Your task to perform on an android device: Add razer nari to the cart on amazon.com, then select checkout. Image 0: 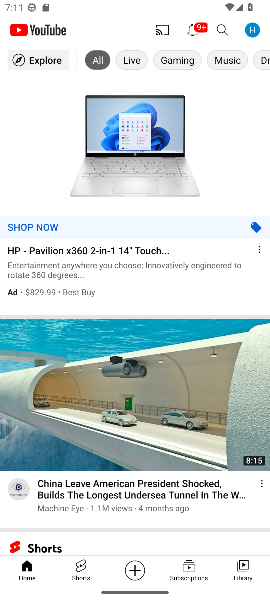
Step 0: press home button
Your task to perform on an android device: Add razer nari to the cart on amazon.com, then select checkout. Image 1: 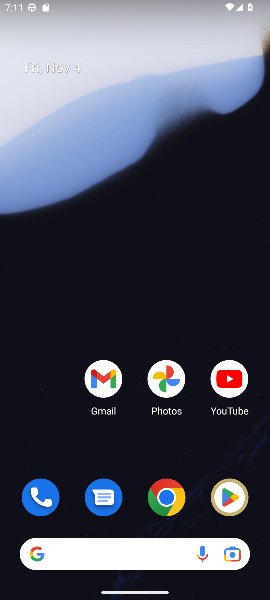
Step 1: click (169, 500)
Your task to perform on an android device: Add razer nari to the cart on amazon.com, then select checkout. Image 2: 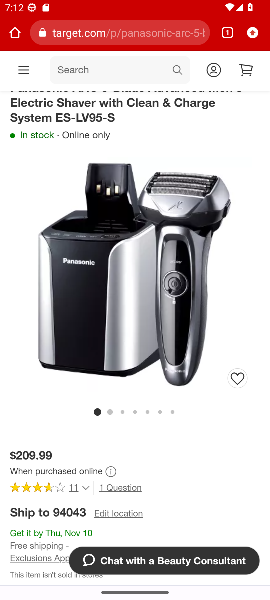
Step 2: click (99, 37)
Your task to perform on an android device: Add razer nari to the cart on amazon.com, then select checkout. Image 3: 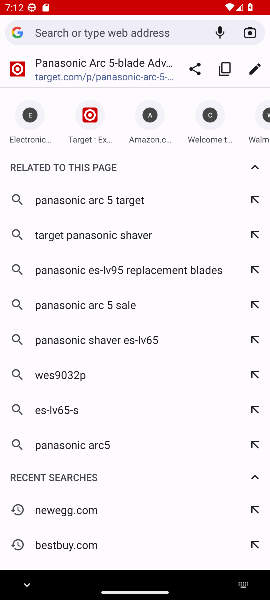
Step 3: click (148, 120)
Your task to perform on an android device: Add razer nari to the cart on amazon.com, then select checkout. Image 4: 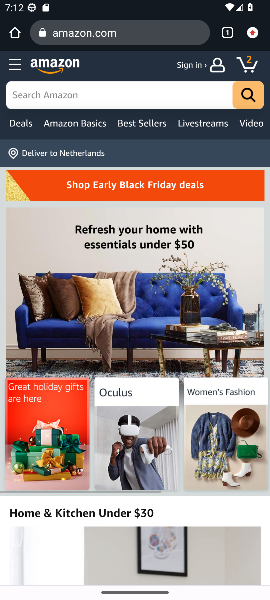
Step 4: click (77, 85)
Your task to perform on an android device: Add razer nari to the cart on amazon.com, then select checkout. Image 5: 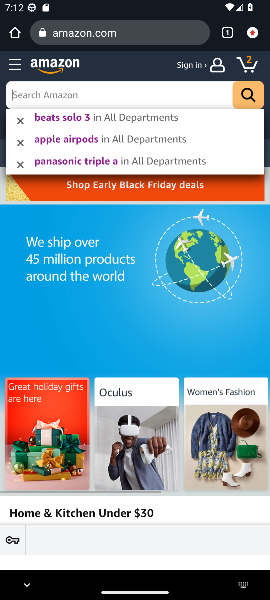
Step 5: type "razer nari"
Your task to perform on an android device: Add razer nari to the cart on amazon.com, then select checkout. Image 6: 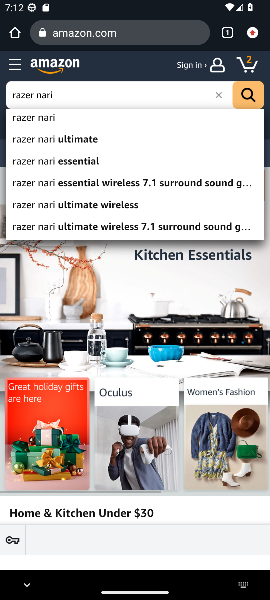
Step 6: click (46, 121)
Your task to perform on an android device: Add razer nari to the cart on amazon.com, then select checkout. Image 7: 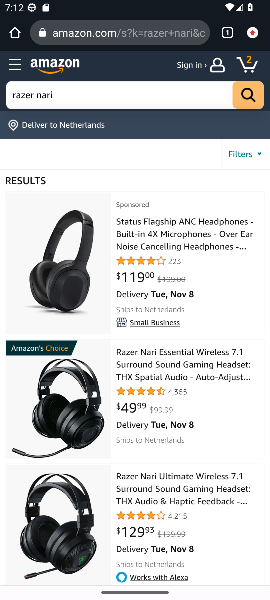
Step 7: click (127, 379)
Your task to perform on an android device: Add razer nari to the cart on amazon.com, then select checkout. Image 8: 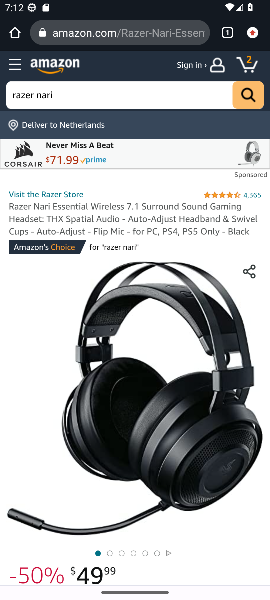
Step 8: drag from (129, 440) to (113, 202)
Your task to perform on an android device: Add razer nari to the cart on amazon.com, then select checkout. Image 9: 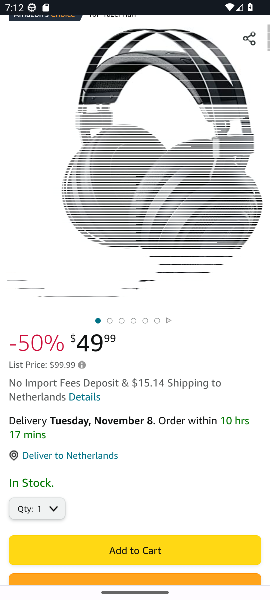
Step 9: drag from (159, 463) to (159, 310)
Your task to perform on an android device: Add razer nari to the cart on amazon.com, then select checkout. Image 10: 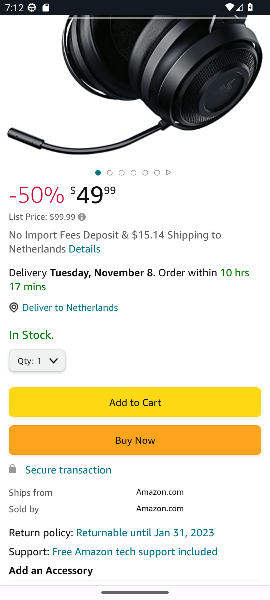
Step 10: click (132, 406)
Your task to perform on an android device: Add razer nari to the cart on amazon.com, then select checkout. Image 11: 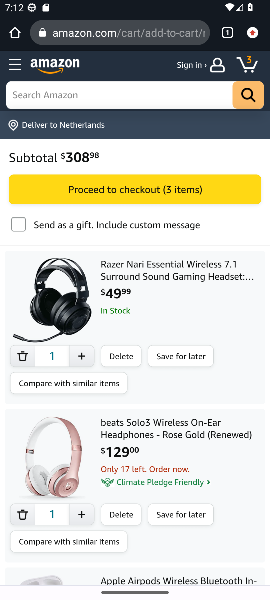
Step 11: click (126, 191)
Your task to perform on an android device: Add razer nari to the cart on amazon.com, then select checkout. Image 12: 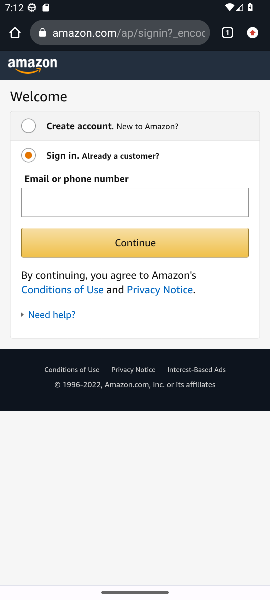
Step 12: task complete